Your task to perform on an android device: stop showing notifications on the lock screen Image 0: 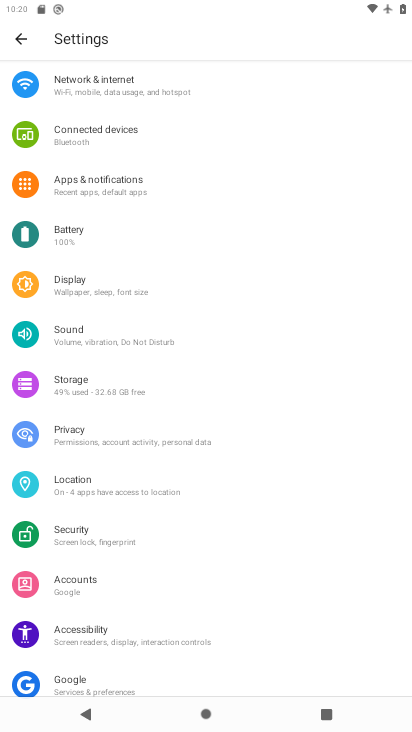
Step 0: click (94, 195)
Your task to perform on an android device: stop showing notifications on the lock screen Image 1: 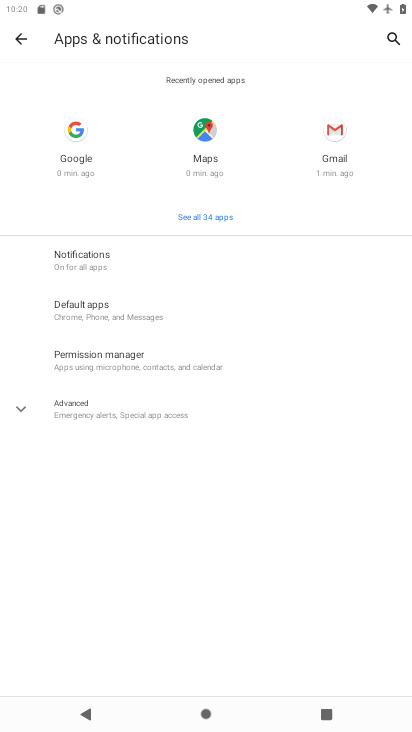
Step 1: click (125, 260)
Your task to perform on an android device: stop showing notifications on the lock screen Image 2: 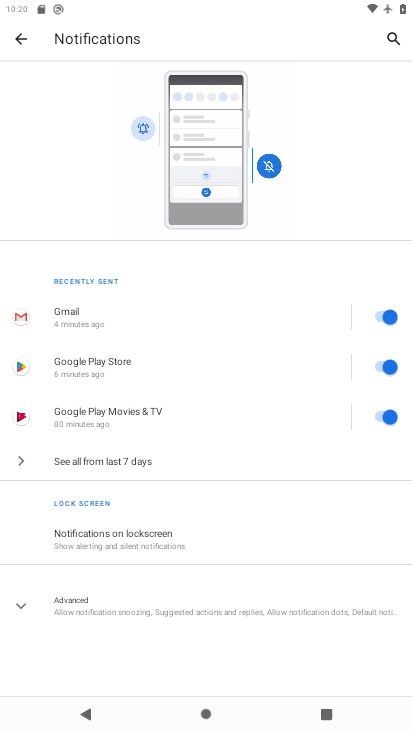
Step 2: click (114, 539)
Your task to perform on an android device: stop showing notifications on the lock screen Image 3: 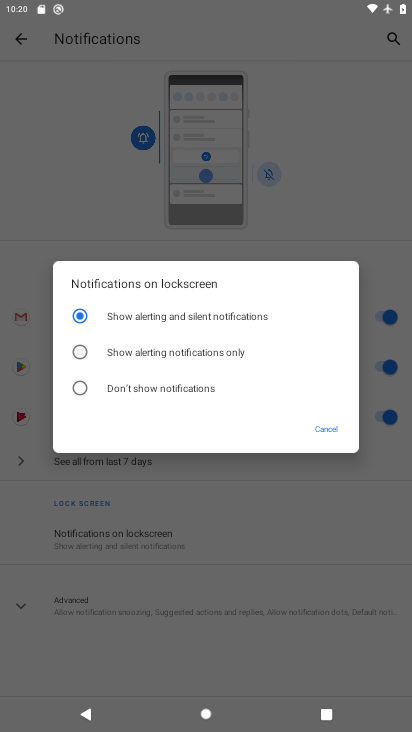
Step 3: click (149, 392)
Your task to perform on an android device: stop showing notifications on the lock screen Image 4: 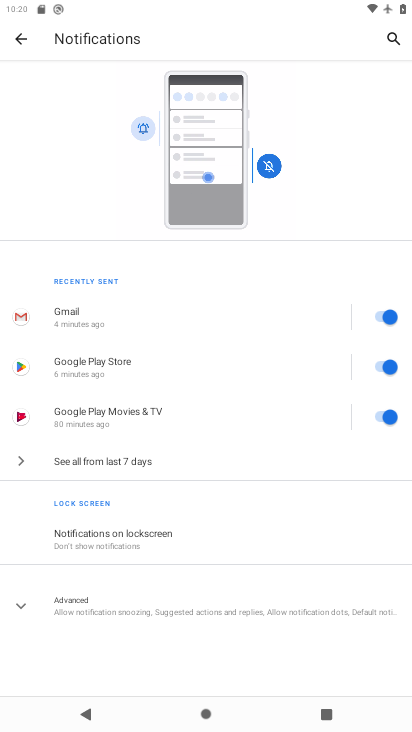
Step 4: task complete